Your task to perform on an android device: turn off sleep mode Image 0: 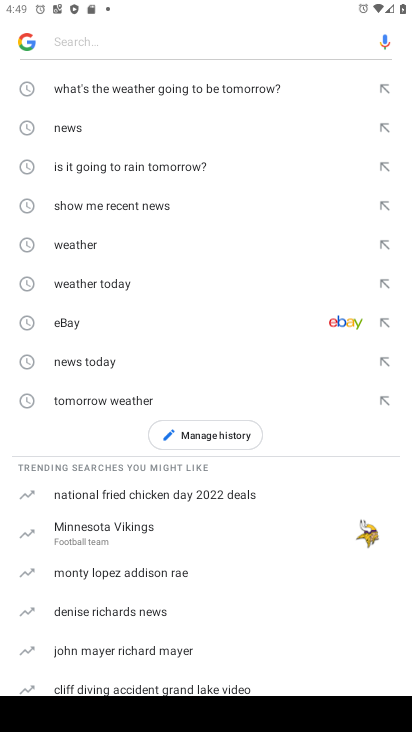
Step 0: press home button
Your task to perform on an android device: turn off sleep mode Image 1: 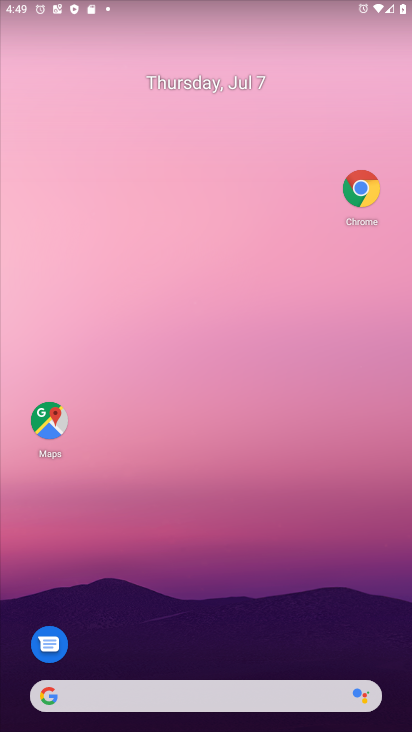
Step 1: drag from (146, 597) to (222, 181)
Your task to perform on an android device: turn off sleep mode Image 2: 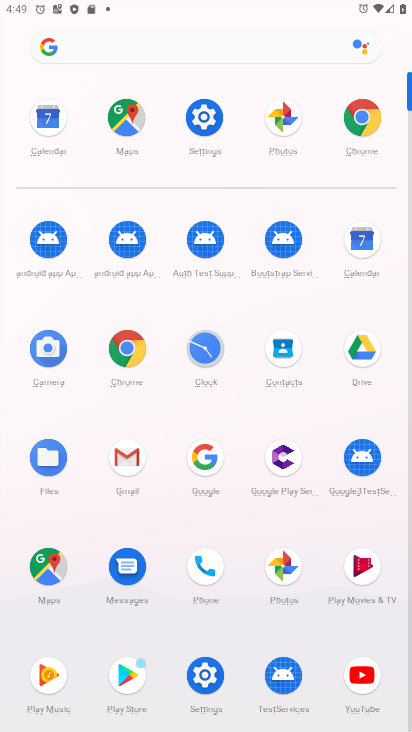
Step 2: click (208, 135)
Your task to perform on an android device: turn off sleep mode Image 3: 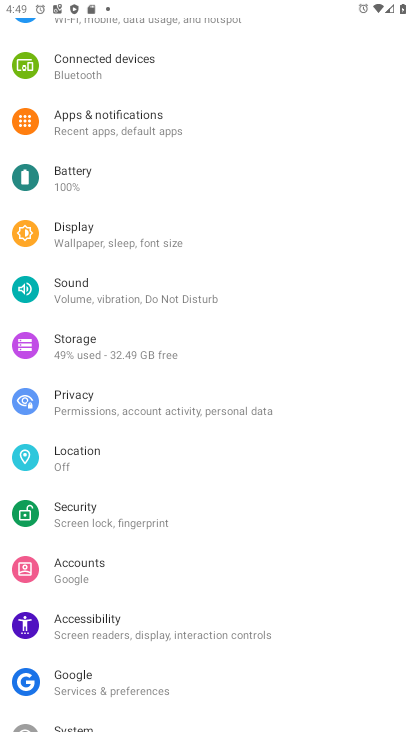
Step 3: click (93, 249)
Your task to perform on an android device: turn off sleep mode Image 4: 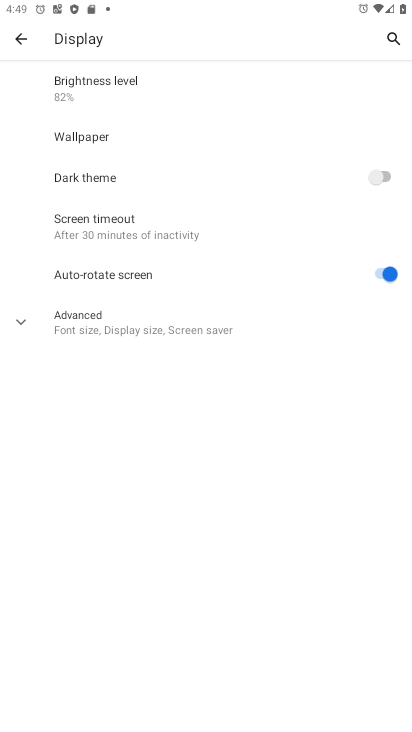
Step 4: task complete